Your task to perform on an android device: Go to network settings Image 0: 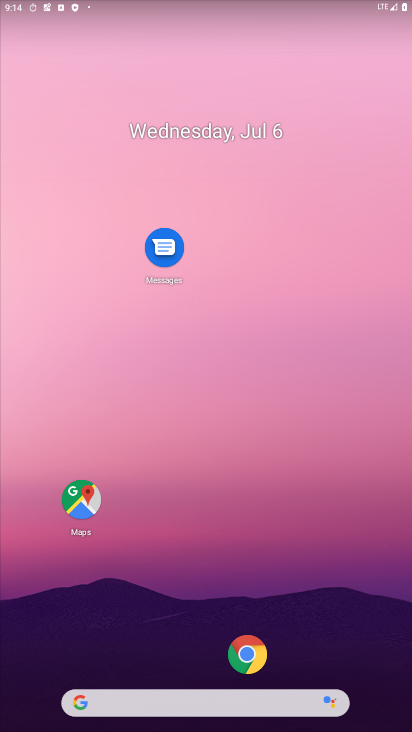
Step 0: drag from (48, 3) to (44, 449)
Your task to perform on an android device: Go to network settings Image 1: 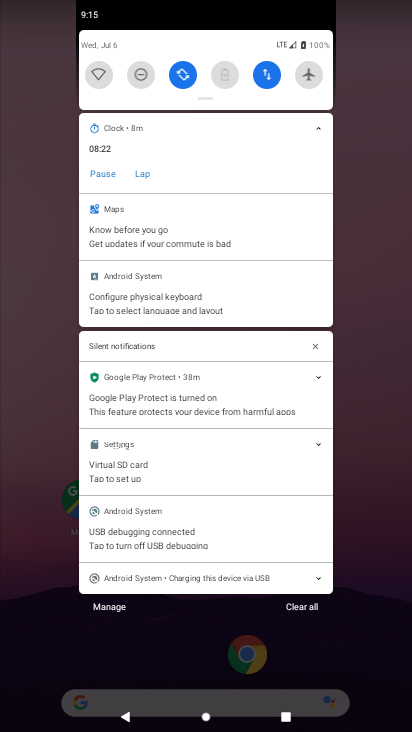
Step 1: click (257, 78)
Your task to perform on an android device: Go to network settings Image 2: 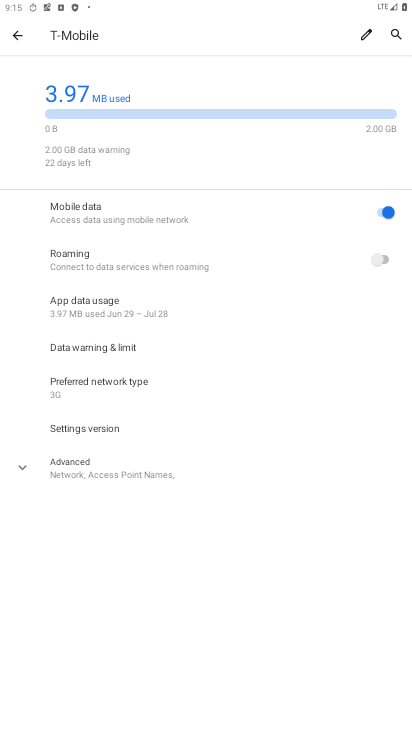
Step 2: task complete